Your task to perform on an android device: Go to Maps Image 0: 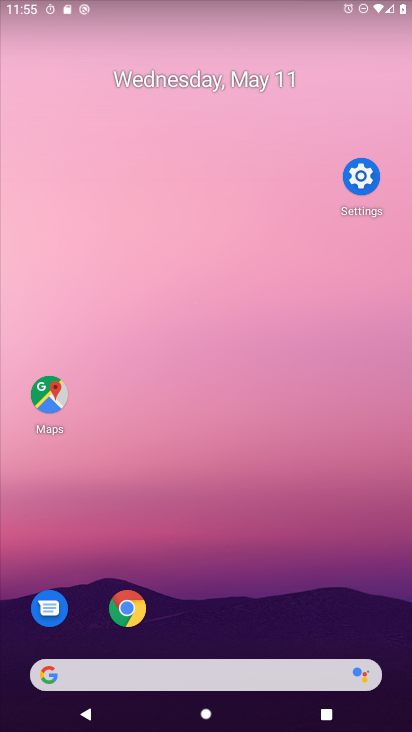
Step 0: drag from (296, 631) to (200, 61)
Your task to perform on an android device: Go to Maps Image 1: 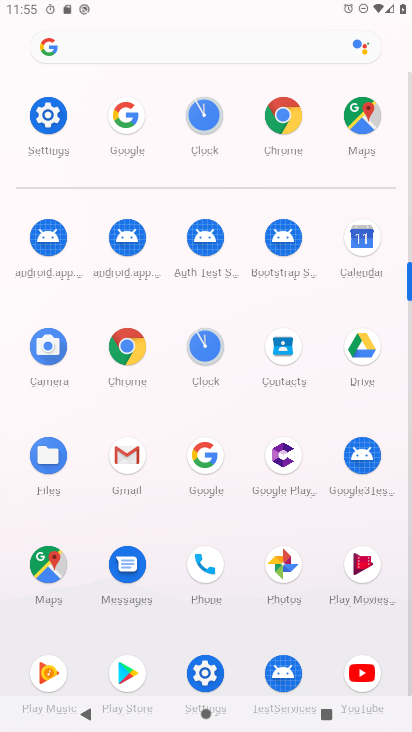
Step 1: click (371, 117)
Your task to perform on an android device: Go to Maps Image 2: 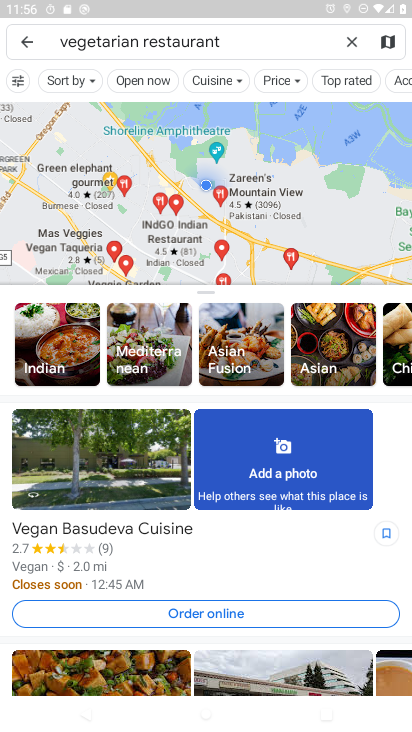
Step 2: task complete